Your task to perform on an android device: Open Google Chrome and open the bookmarks view Image 0: 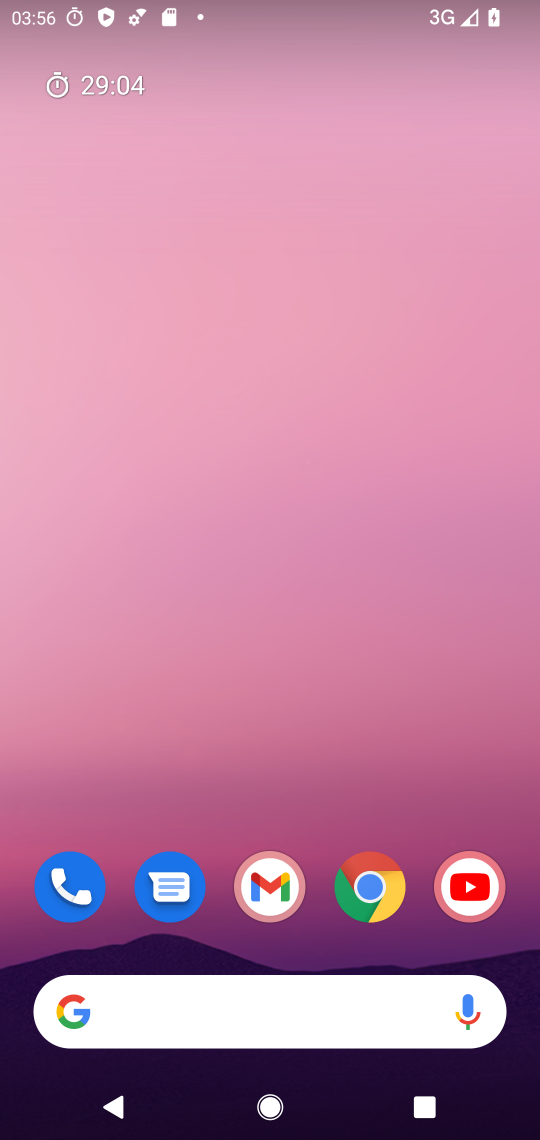
Step 0: press home button
Your task to perform on an android device: Open Google Chrome and open the bookmarks view Image 1: 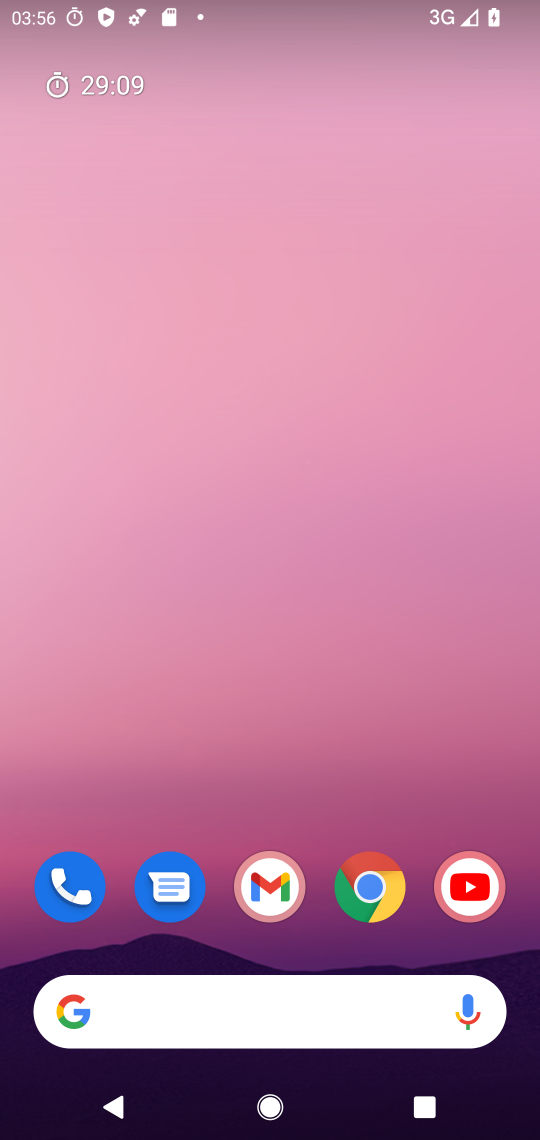
Step 1: drag from (297, 775) to (335, 371)
Your task to perform on an android device: Open Google Chrome and open the bookmarks view Image 2: 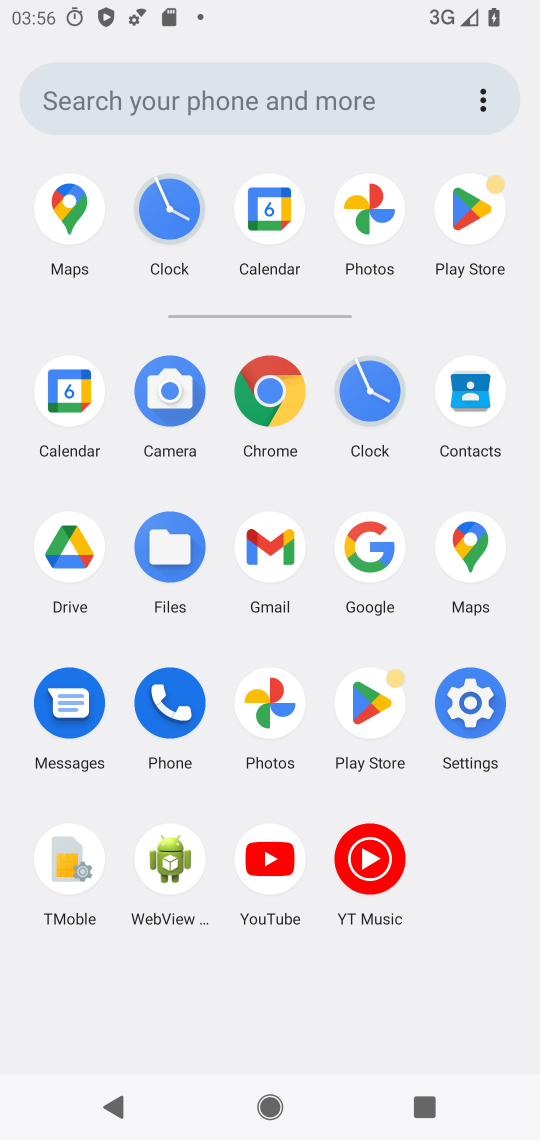
Step 2: click (285, 386)
Your task to perform on an android device: Open Google Chrome and open the bookmarks view Image 3: 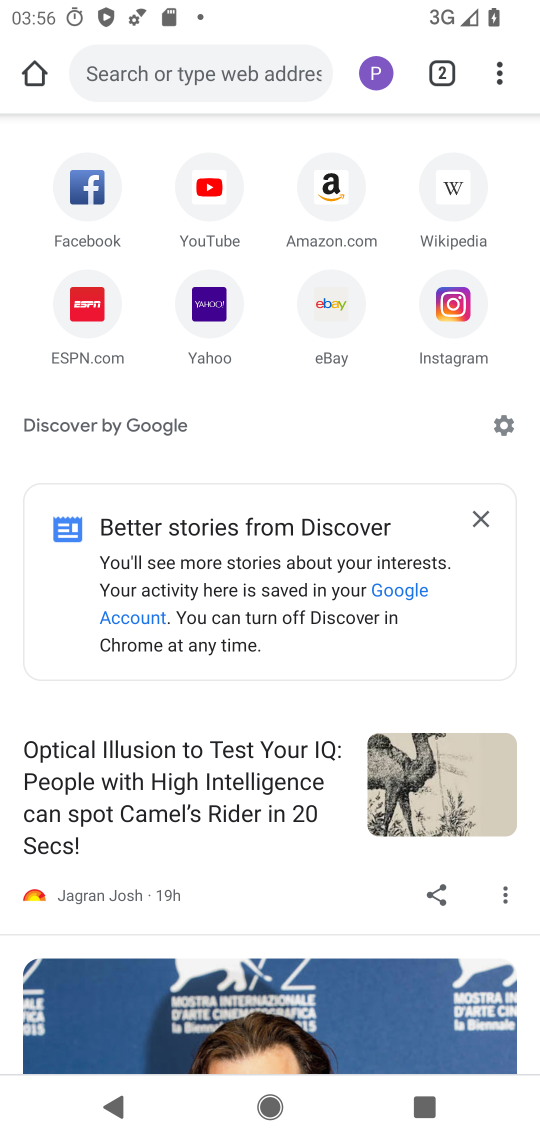
Step 3: click (502, 79)
Your task to perform on an android device: Open Google Chrome and open the bookmarks view Image 4: 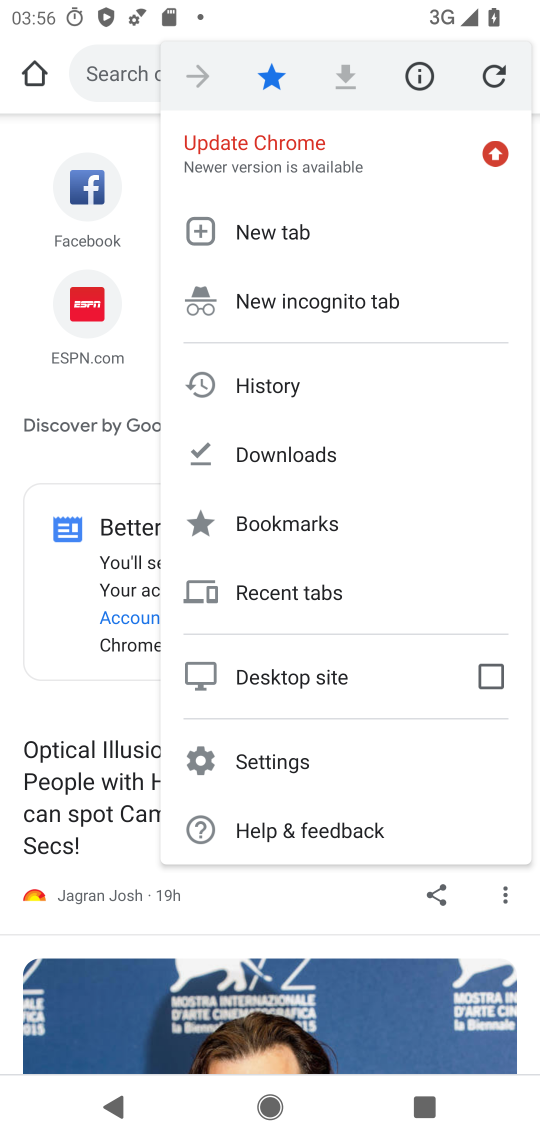
Step 4: drag from (411, 524) to (415, 356)
Your task to perform on an android device: Open Google Chrome and open the bookmarks view Image 5: 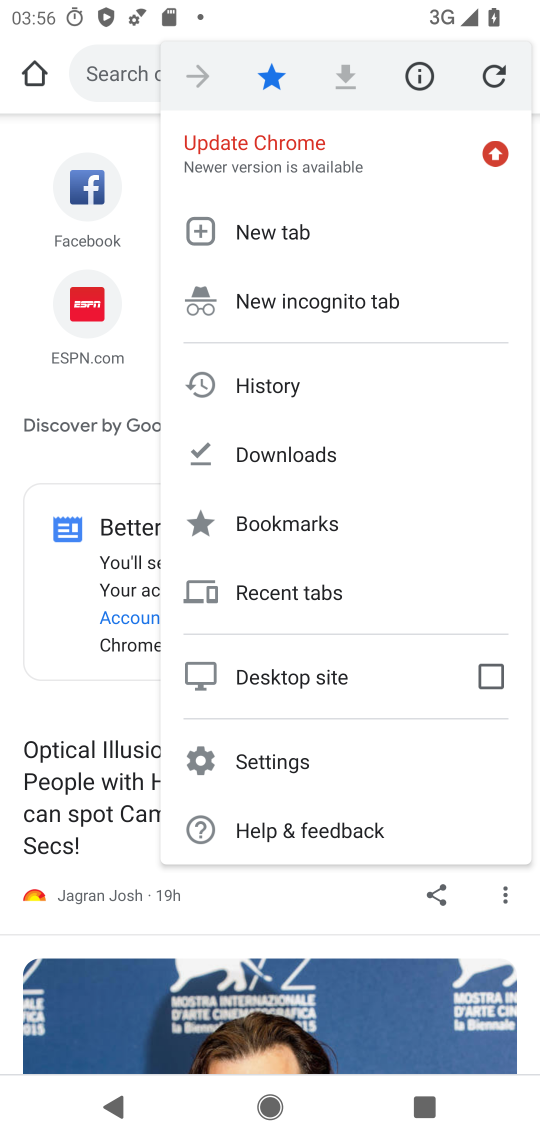
Step 5: click (335, 539)
Your task to perform on an android device: Open Google Chrome and open the bookmarks view Image 6: 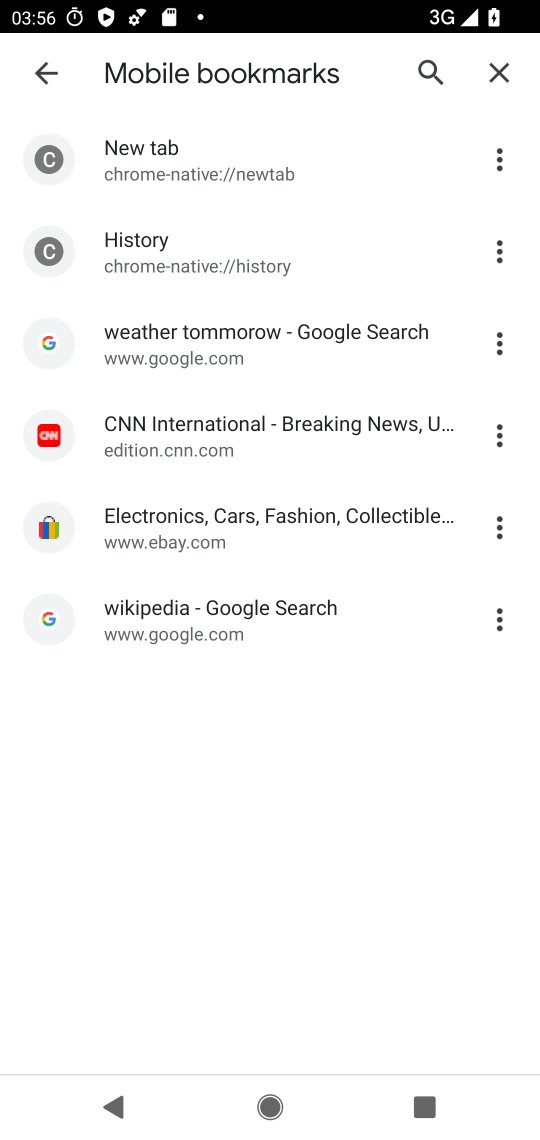
Step 6: task complete